Your task to perform on an android device: Clear the cart on costco. Search for dell alienware on costco, select the first entry, add it to the cart, then select checkout. Image 0: 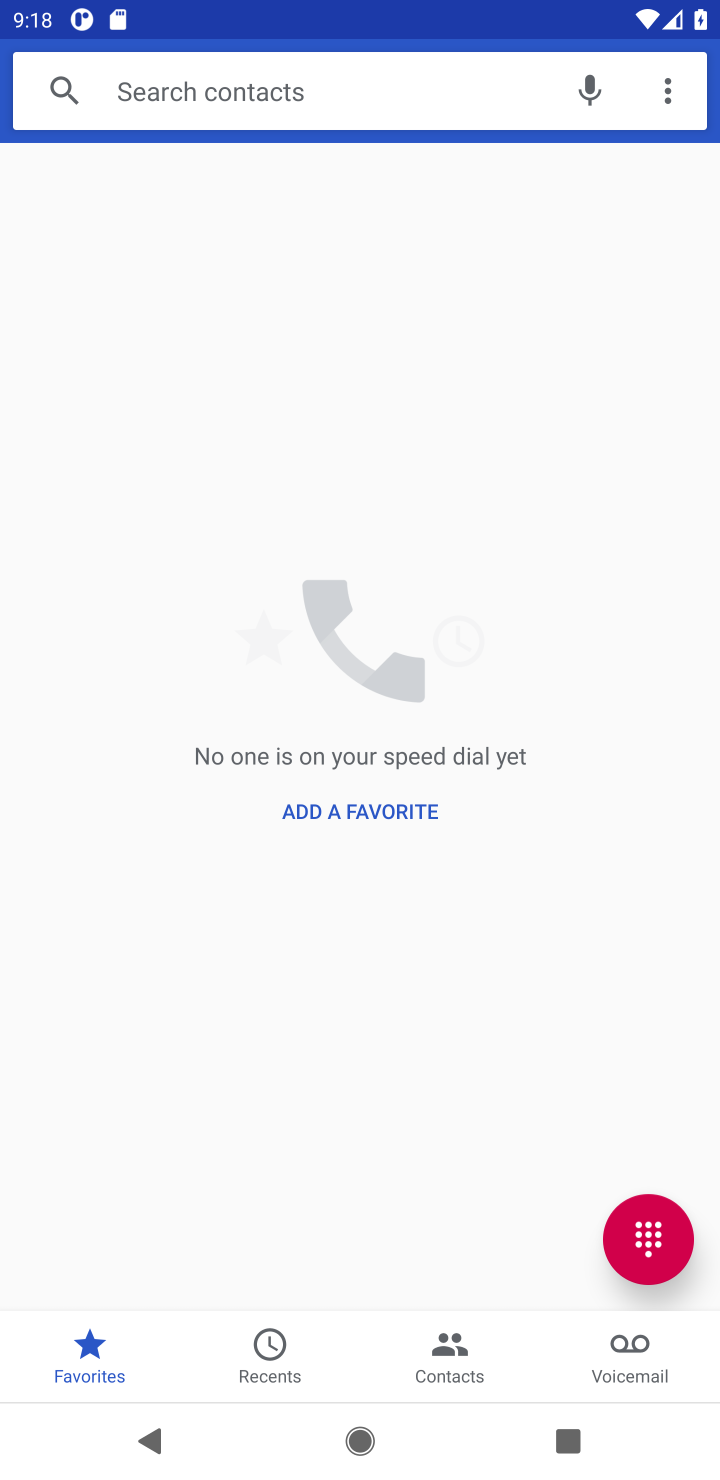
Step 0: press home button
Your task to perform on an android device: Clear the cart on costco. Search for dell alienware on costco, select the first entry, add it to the cart, then select checkout. Image 1: 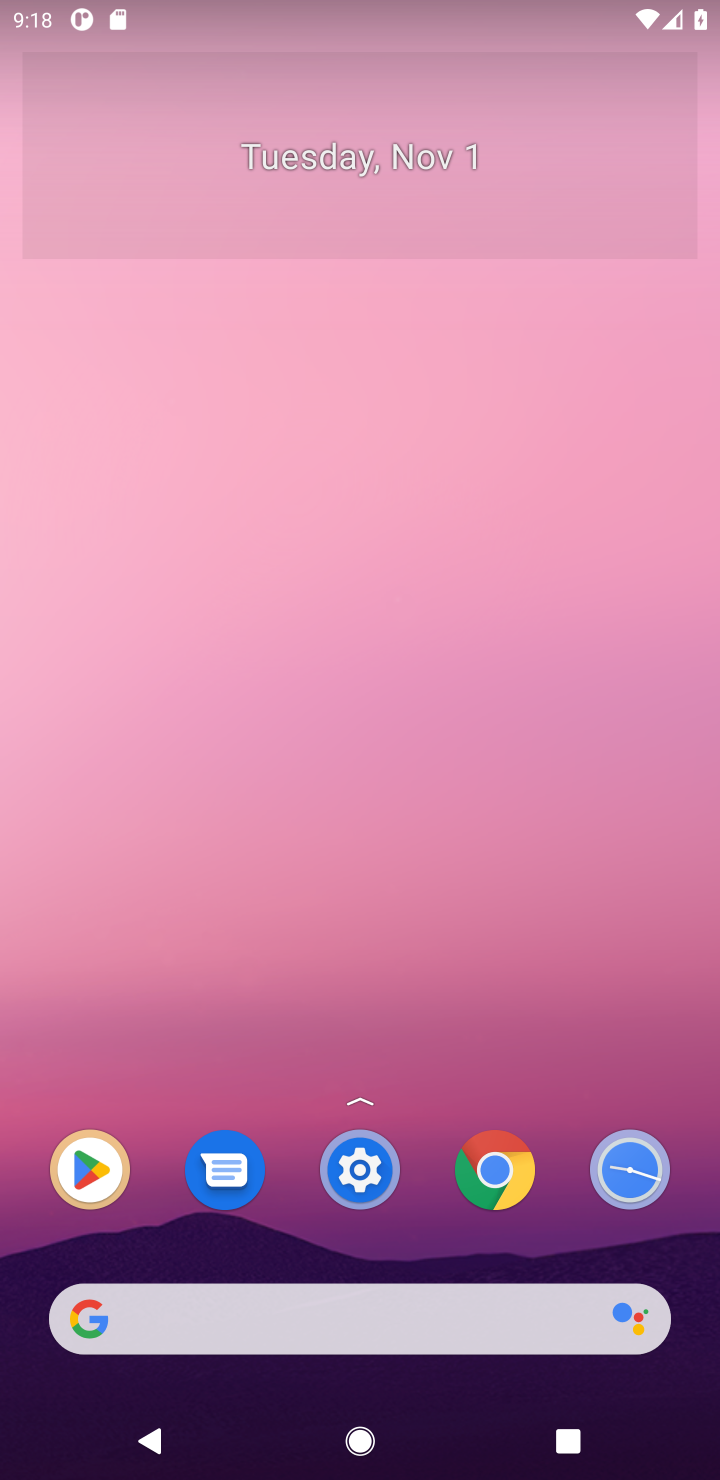
Step 1: click (92, 1311)
Your task to perform on an android device: Clear the cart on costco. Search for dell alienware on costco, select the first entry, add it to the cart, then select checkout. Image 2: 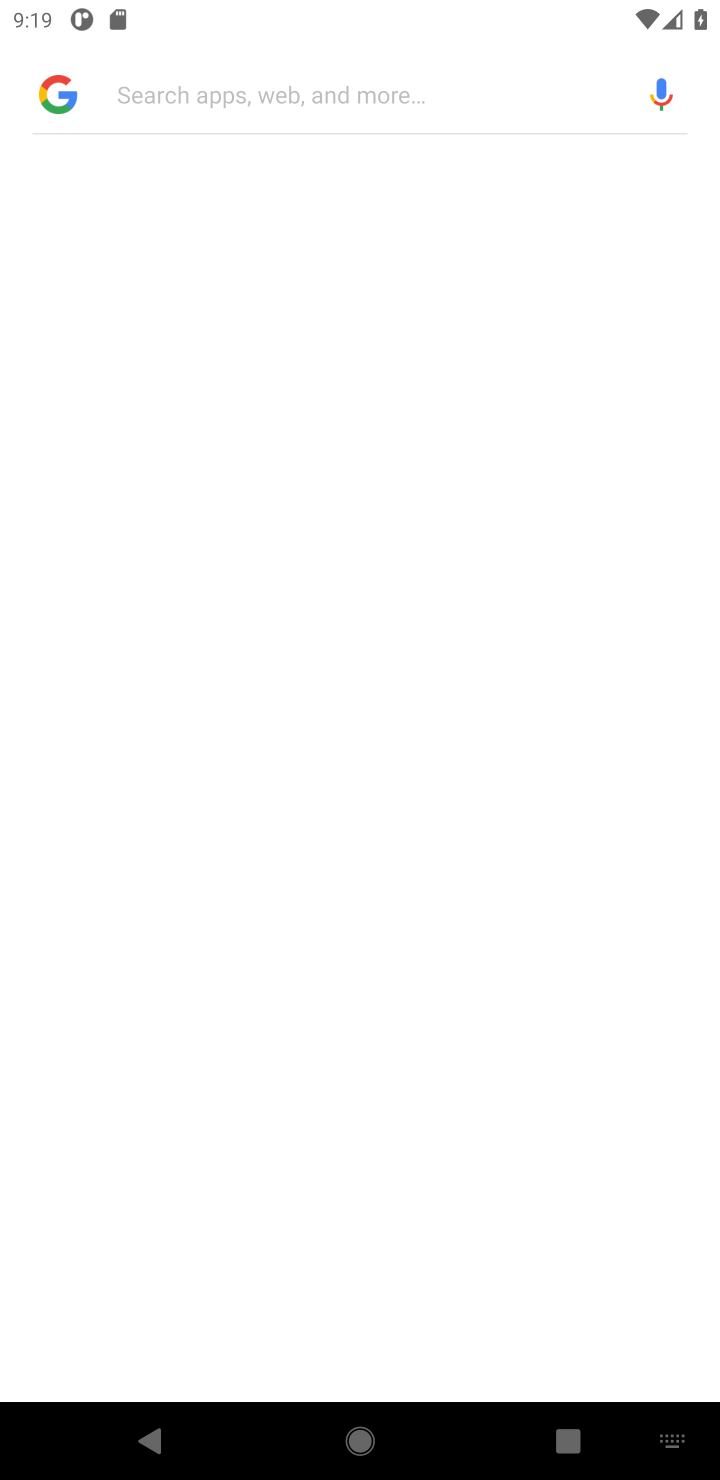
Step 2: type "costco"
Your task to perform on an android device: Clear the cart on costco. Search for dell alienware on costco, select the first entry, add it to the cart, then select checkout. Image 3: 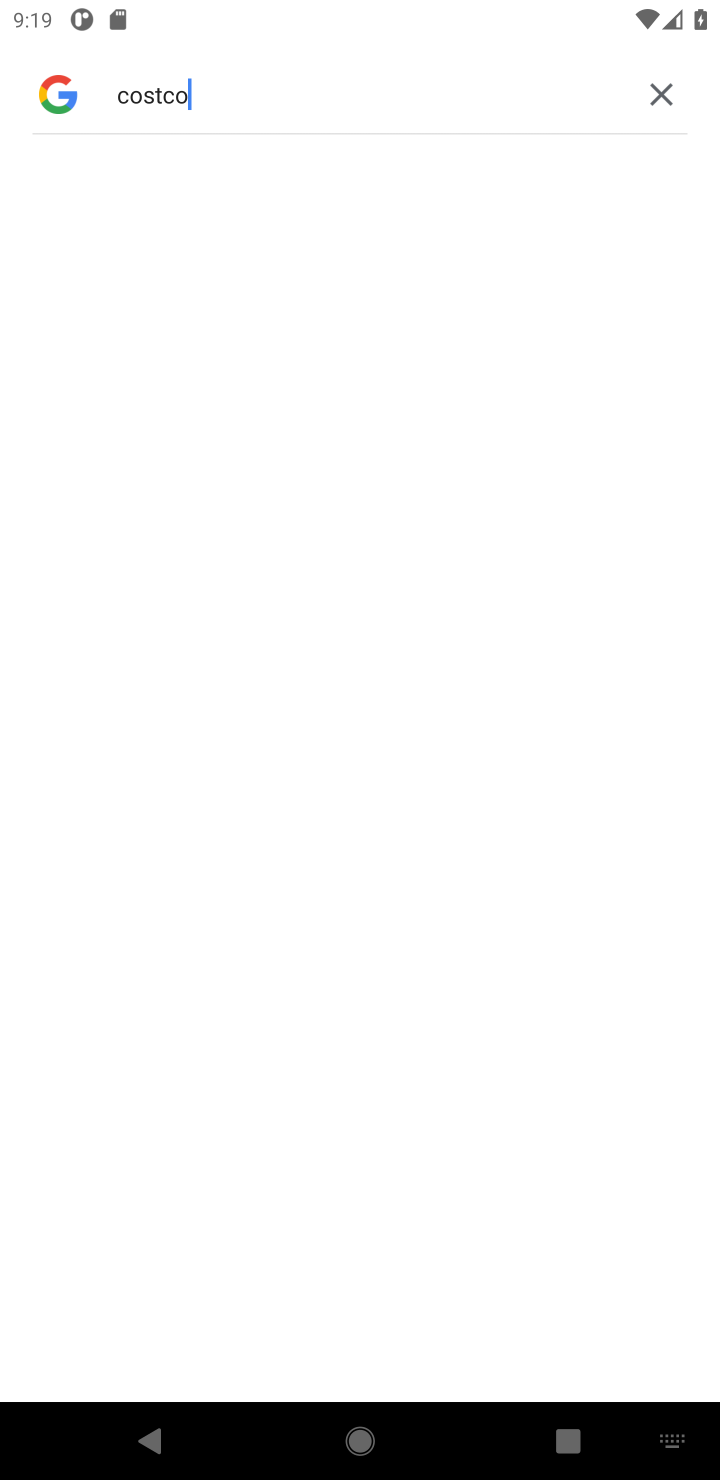
Step 3: task complete